Your task to perform on an android device: install app "Etsy: Buy & Sell Unique Items" Image 0: 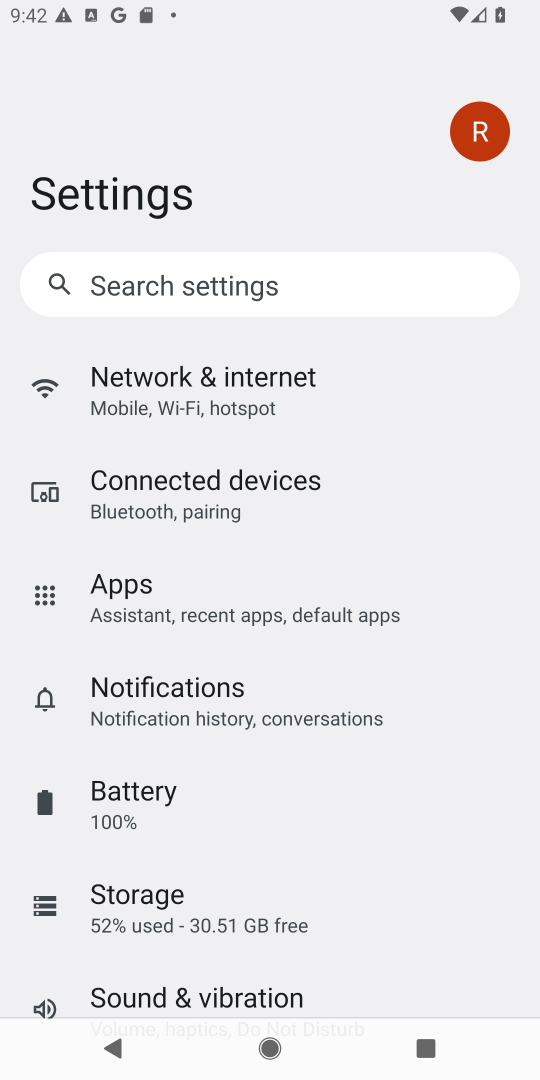
Step 0: press home button
Your task to perform on an android device: install app "Etsy: Buy & Sell Unique Items" Image 1: 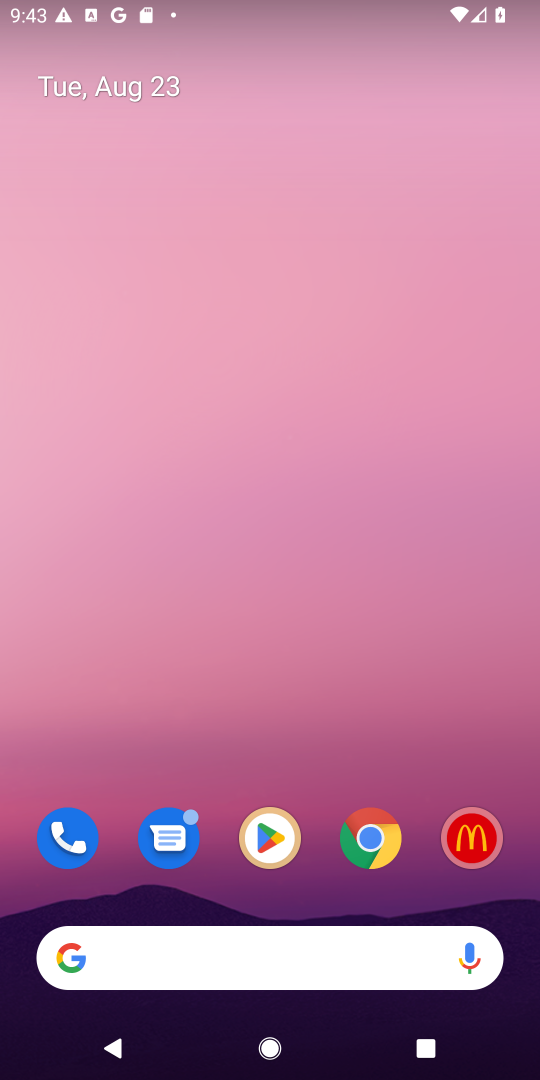
Step 1: click (267, 839)
Your task to perform on an android device: install app "Etsy: Buy & Sell Unique Items" Image 2: 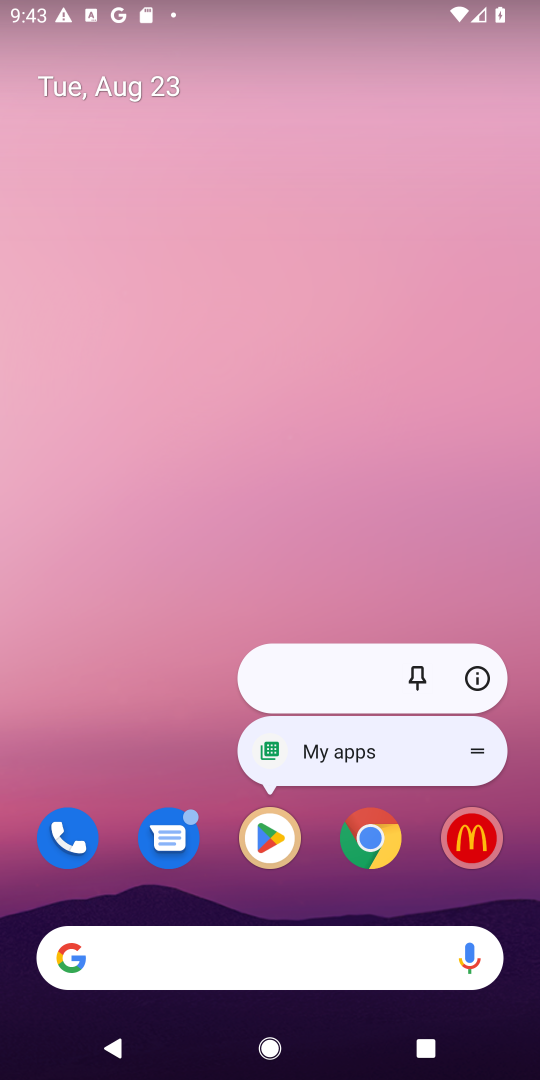
Step 2: click (256, 845)
Your task to perform on an android device: install app "Etsy: Buy & Sell Unique Items" Image 3: 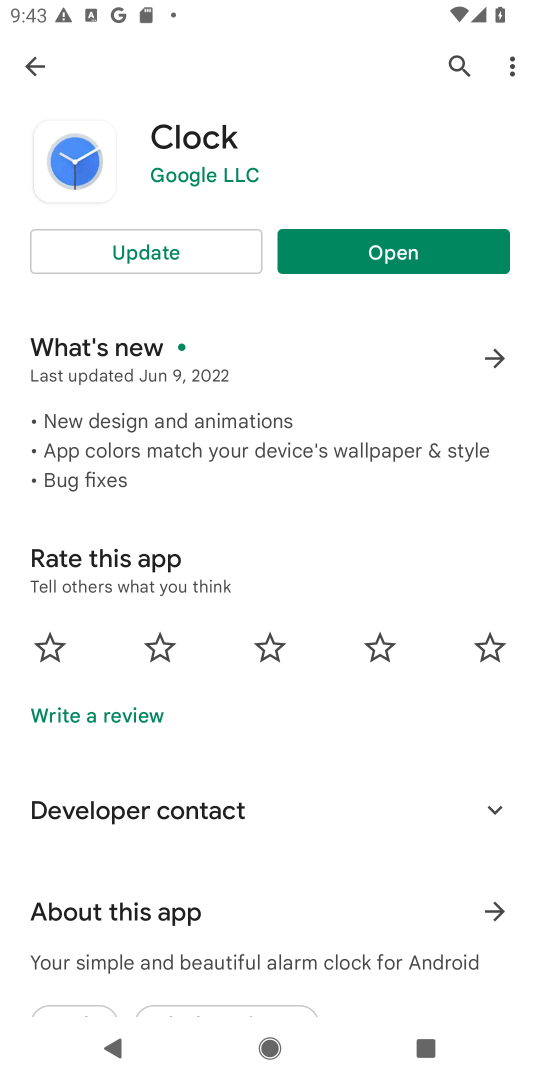
Step 3: click (453, 63)
Your task to perform on an android device: install app "Etsy: Buy & Sell Unique Items" Image 4: 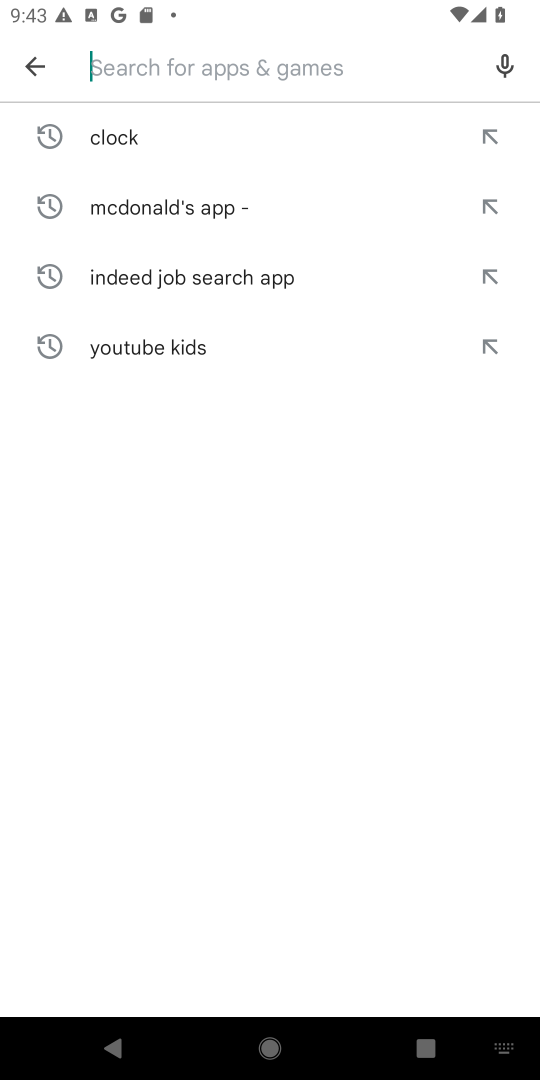
Step 4: type "Etsy: Buy & Sell Unique Items"
Your task to perform on an android device: install app "Etsy: Buy & Sell Unique Items" Image 5: 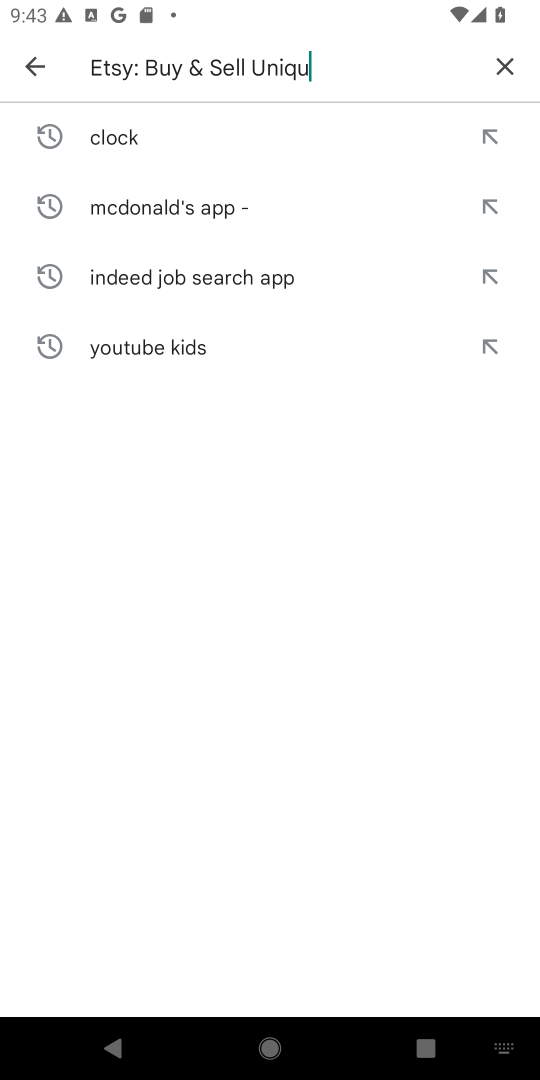
Step 5: type ""
Your task to perform on an android device: install app "Etsy: Buy & Sell Unique Items" Image 6: 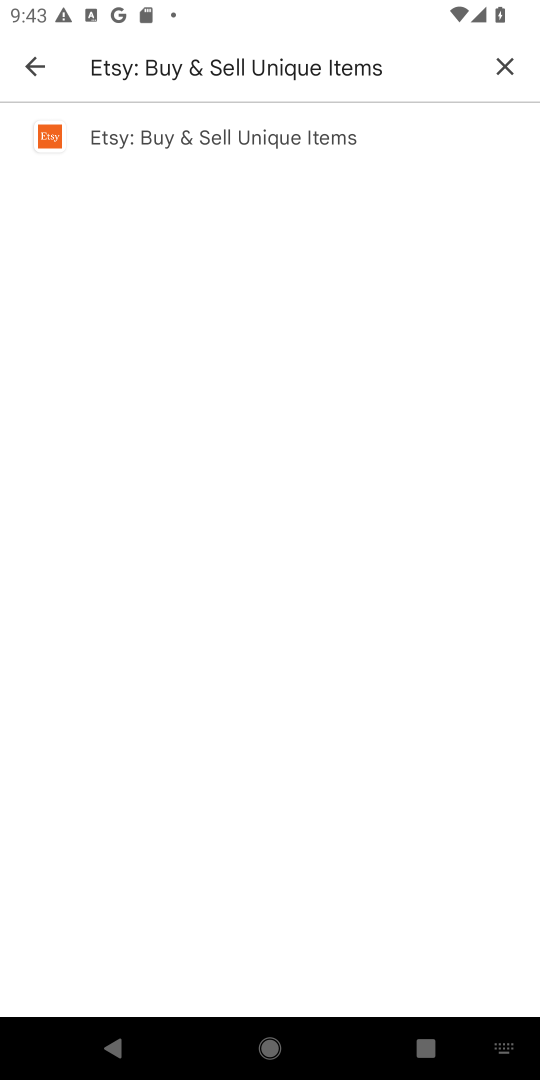
Step 6: click (183, 132)
Your task to perform on an android device: install app "Etsy: Buy & Sell Unique Items" Image 7: 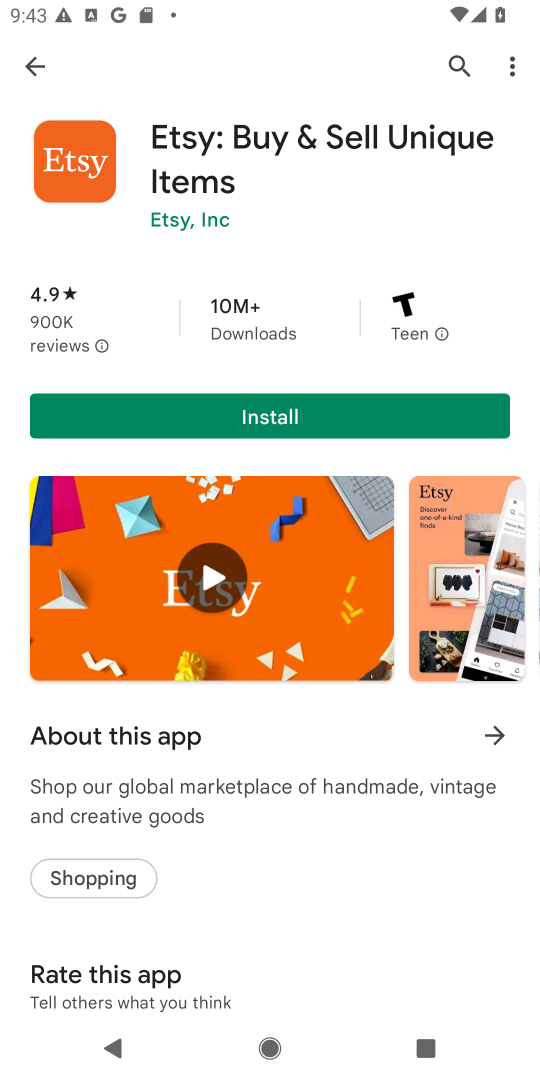
Step 7: click (342, 407)
Your task to perform on an android device: install app "Etsy: Buy & Sell Unique Items" Image 8: 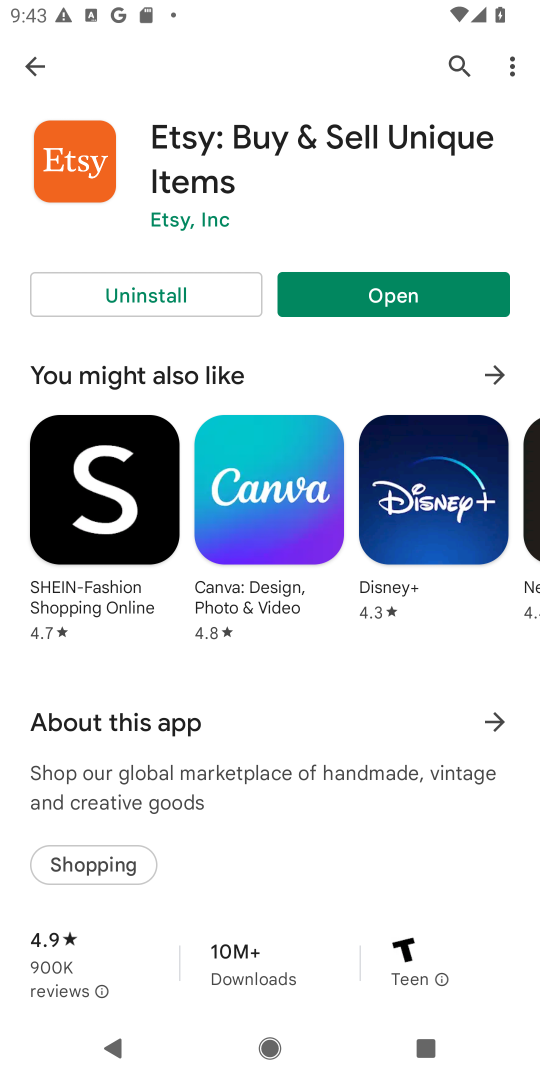
Step 8: task complete